Your task to perform on an android device: open a new tab in the chrome app Image 0: 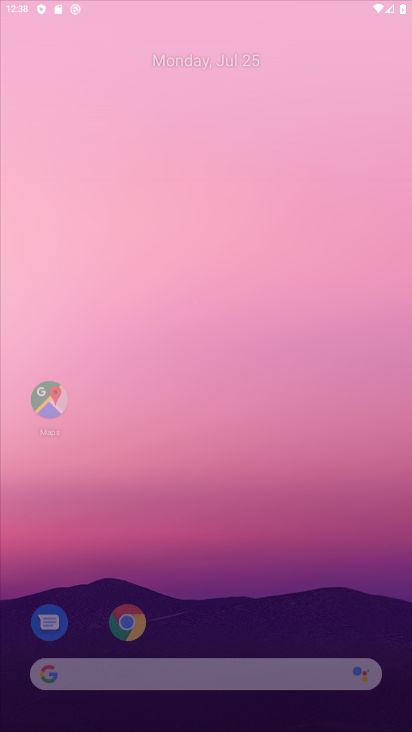
Step 0: click (220, 54)
Your task to perform on an android device: open a new tab in the chrome app Image 1: 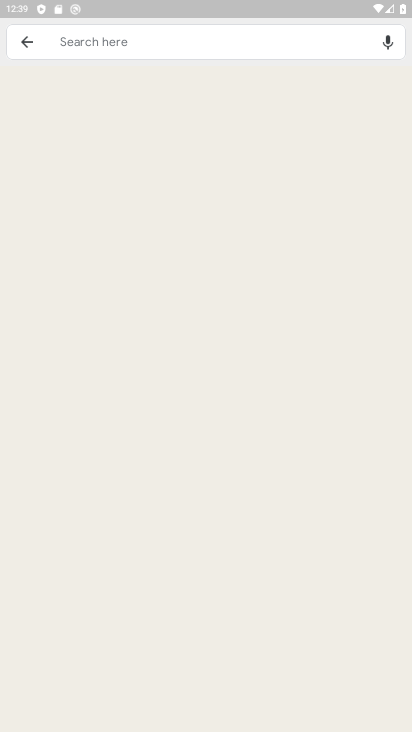
Step 1: press home button
Your task to perform on an android device: open a new tab in the chrome app Image 2: 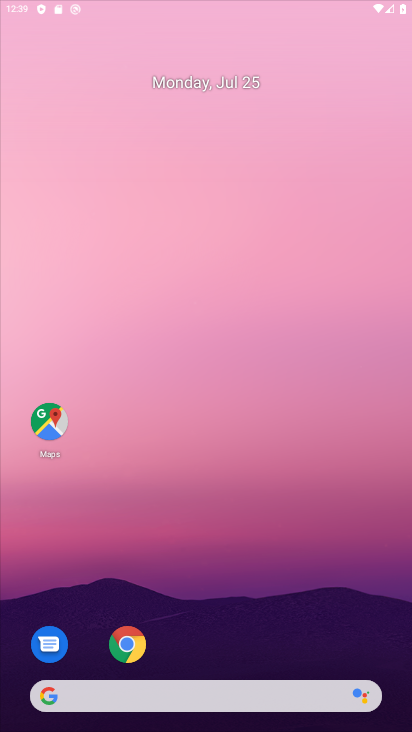
Step 2: press home button
Your task to perform on an android device: open a new tab in the chrome app Image 3: 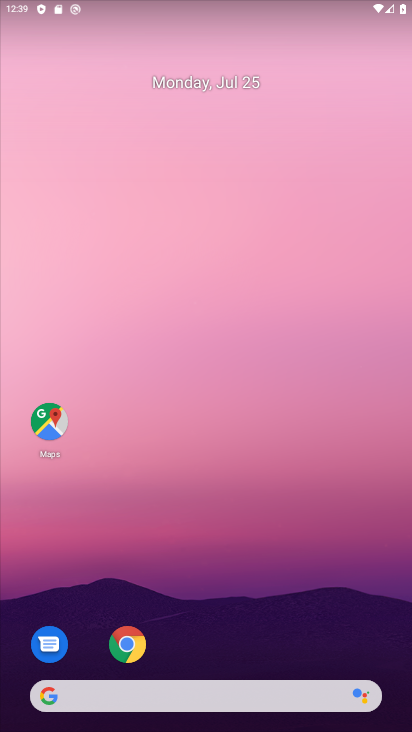
Step 3: drag from (173, 725) to (235, 189)
Your task to perform on an android device: open a new tab in the chrome app Image 4: 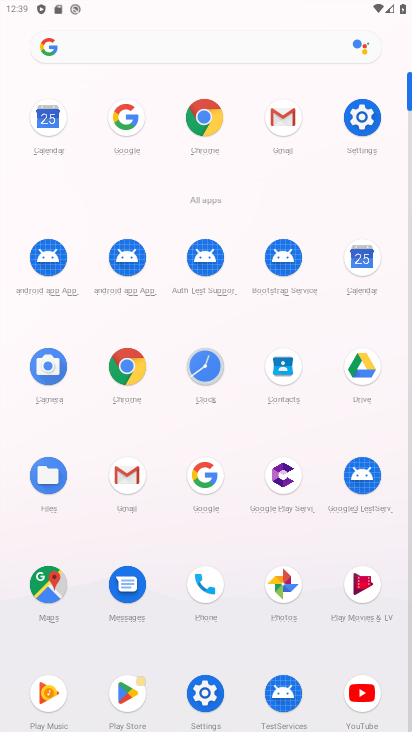
Step 4: click (205, 129)
Your task to perform on an android device: open a new tab in the chrome app Image 5: 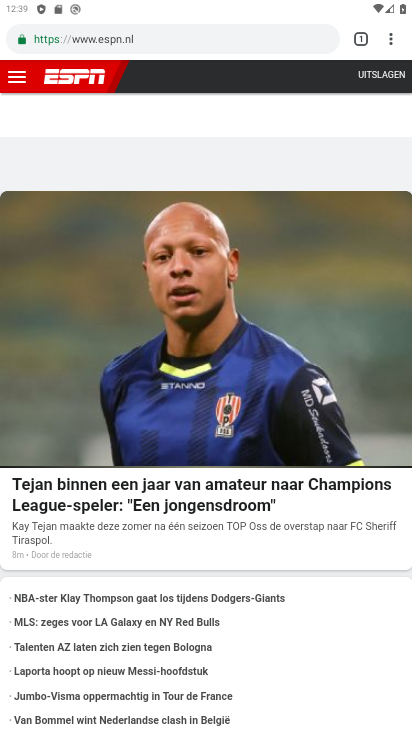
Step 5: click (392, 38)
Your task to perform on an android device: open a new tab in the chrome app Image 6: 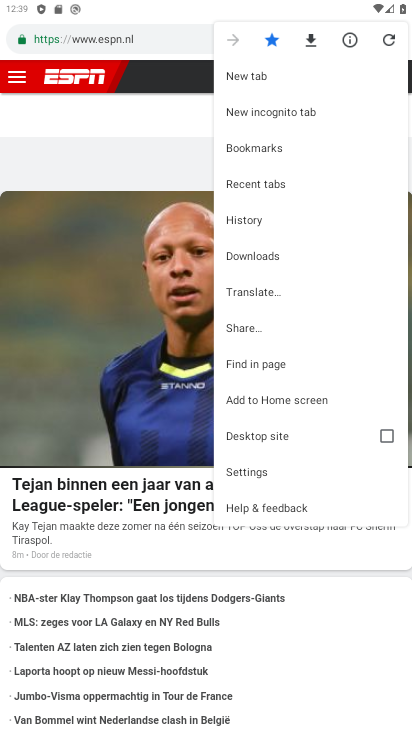
Step 6: click (245, 74)
Your task to perform on an android device: open a new tab in the chrome app Image 7: 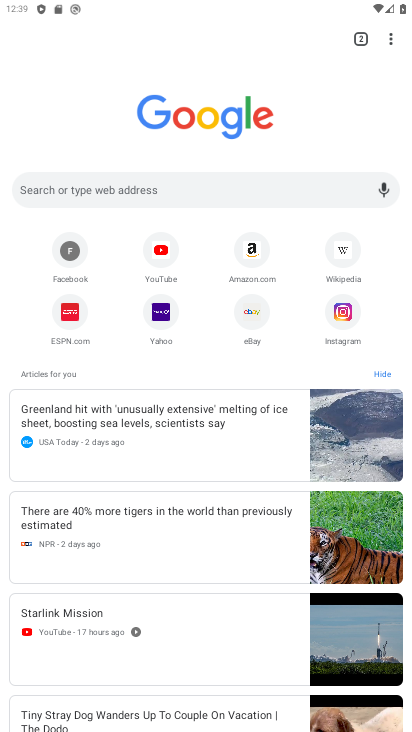
Step 7: task complete